Your task to perform on an android device: open a new tab in the chrome app Image 0: 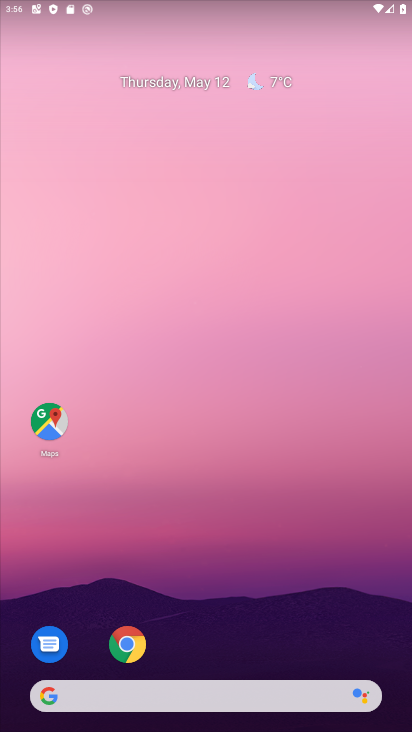
Step 0: click (124, 640)
Your task to perform on an android device: open a new tab in the chrome app Image 1: 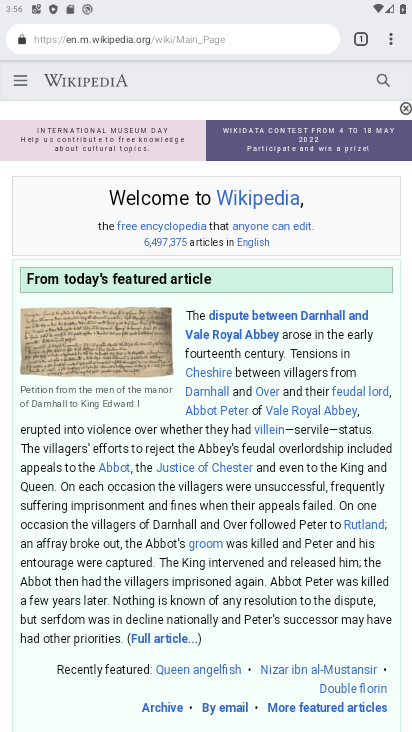
Step 1: click (359, 40)
Your task to perform on an android device: open a new tab in the chrome app Image 2: 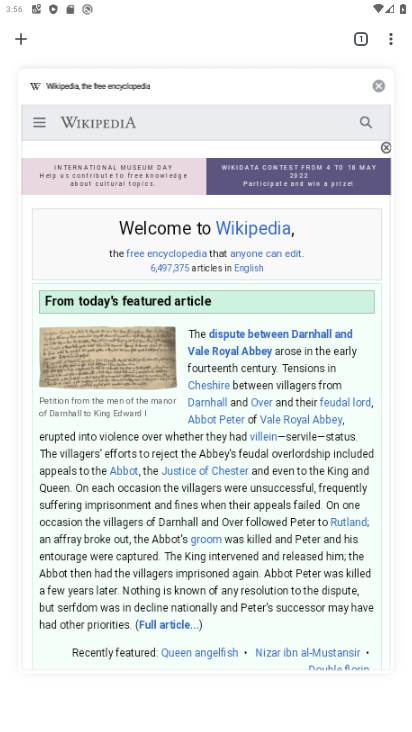
Step 2: click (18, 37)
Your task to perform on an android device: open a new tab in the chrome app Image 3: 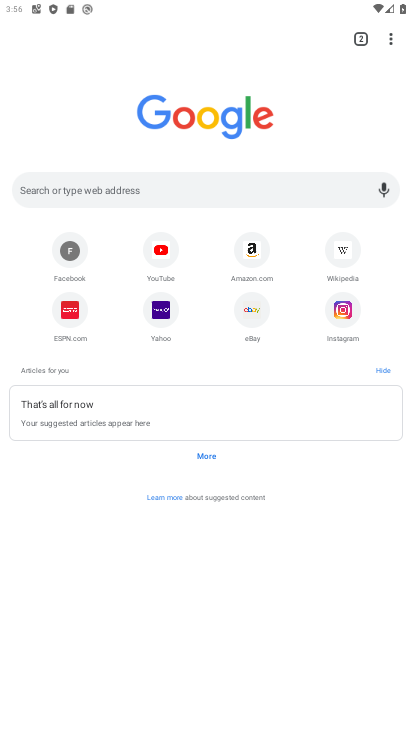
Step 3: task complete